Your task to perform on an android device: Open the map Image 0: 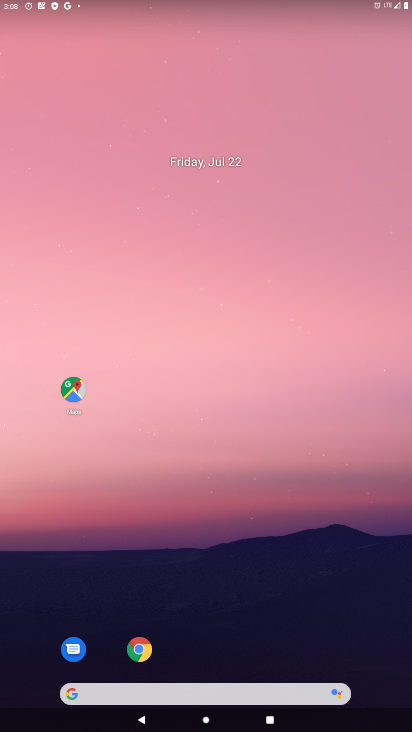
Step 0: drag from (244, 614) to (157, 7)
Your task to perform on an android device: Open the map Image 1: 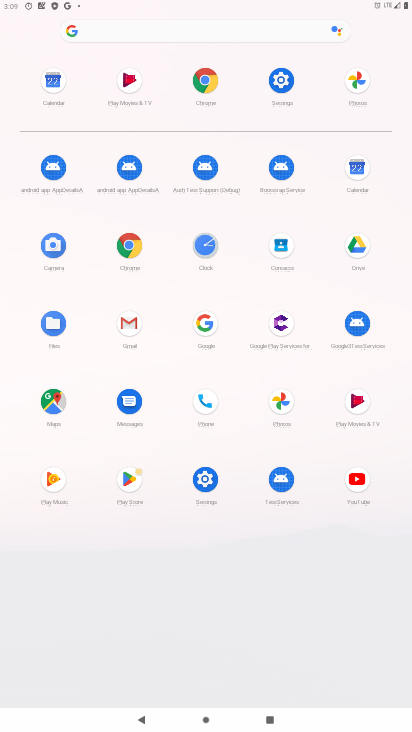
Step 1: click (48, 402)
Your task to perform on an android device: Open the map Image 2: 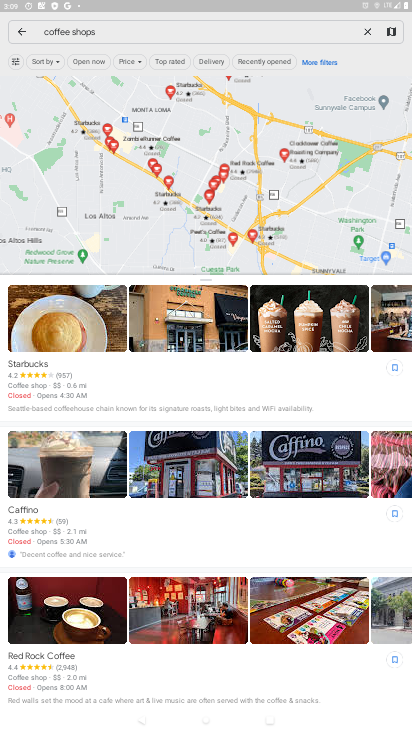
Step 2: task complete